Your task to perform on an android device: Do I have any events tomorrow? Image 0: 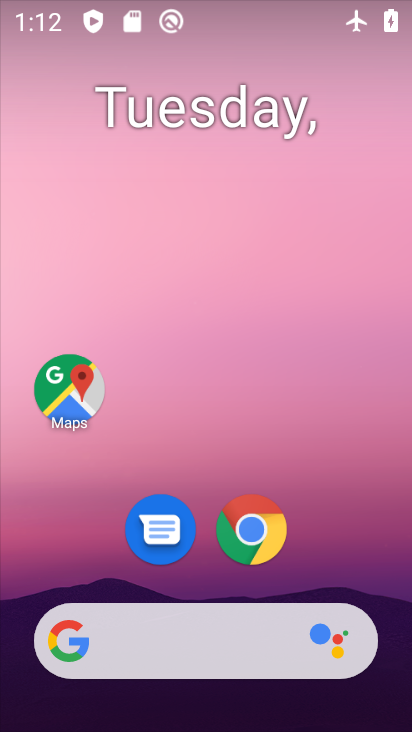
Step 0: drag from (401, 548) to (344, 132)
Your task to perform on an android device: Do I have any events tomorrow? Image 1: 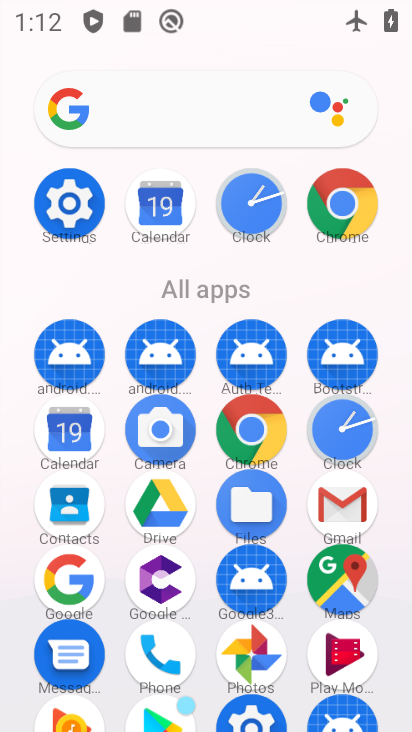
Step 1: click (157, 180)
Your task to perform on an android device: Do I have any events tomorrow? Image 2: 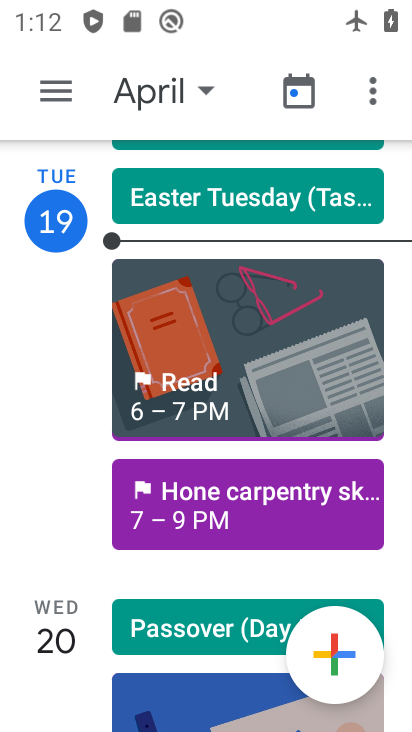
Step 2: click (185, 99)
Your task to perform on an android device: Do I have any events tomorrow? Image 3: 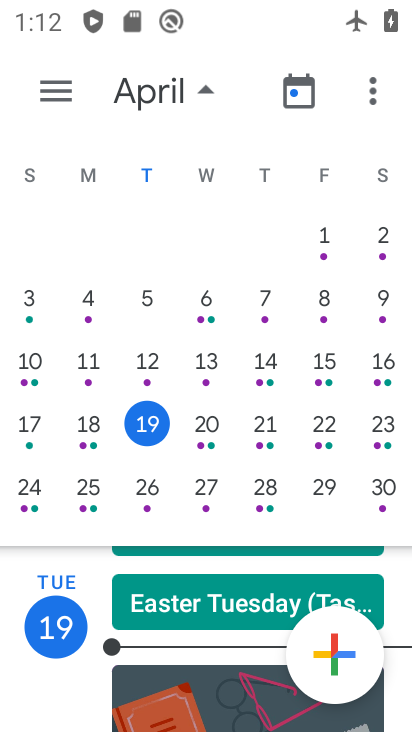
Step 3: click (208, 440)
Your task to perform on an android device: Do I have any events tomorrow? Image 4: 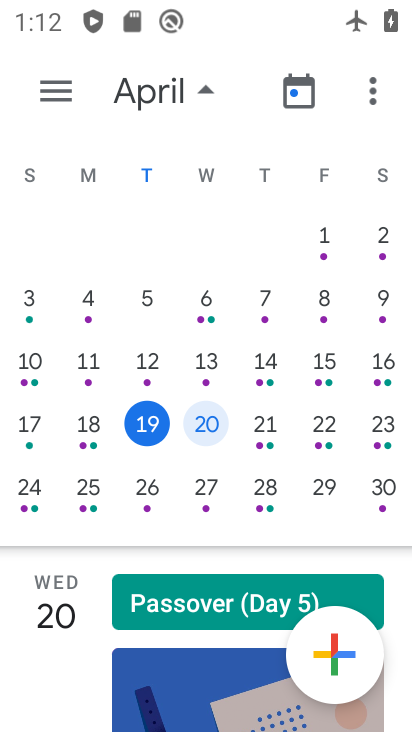
Step 4: click (209, 434)
Your task to perform on an android device: Do I have any events tomorrow? Image 5: 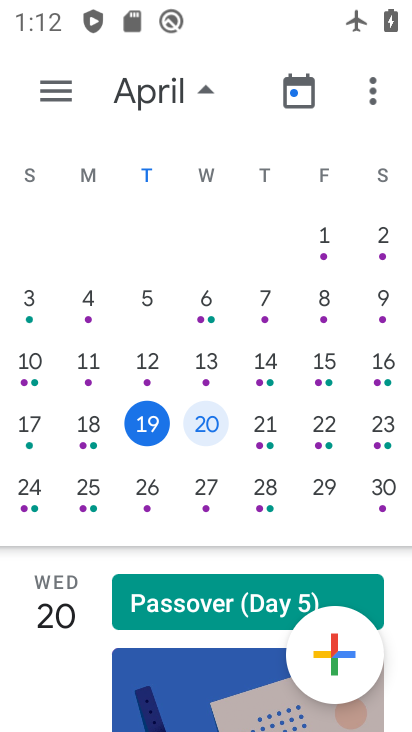
Step 5: click (184, 87)
Your task to perform on an android device: Do I have any events tomorrow? Image 6: 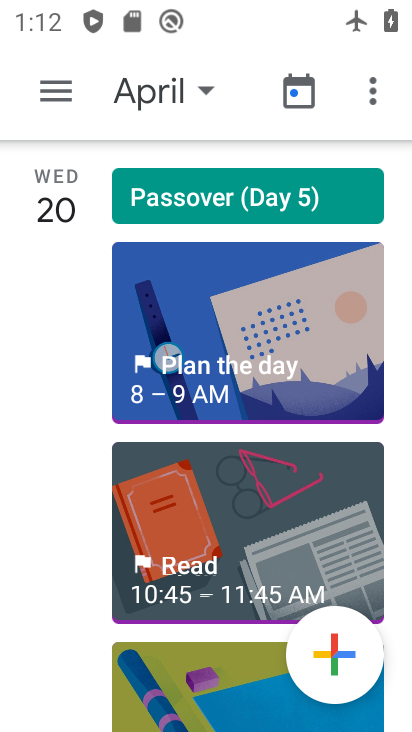
Step 6: task complete